Your task to perform on an android device: What is the capital of China? Image 0: 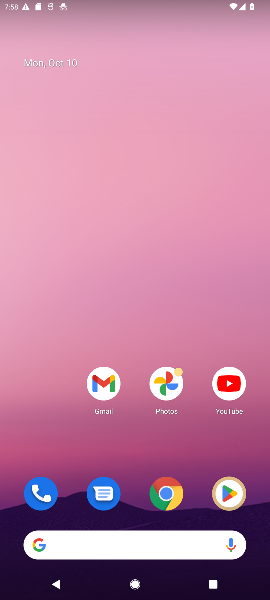
Step 0: click (103, 552)
Your task to perform on an android device: What is the capital of China? Image 1: 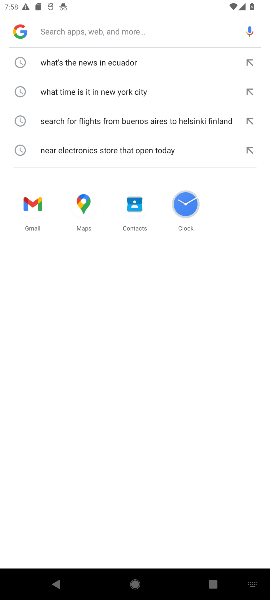
Step 1: type "What is the capital of China?"
Your task to perform on an android device: What is the capital of China? Image 2: 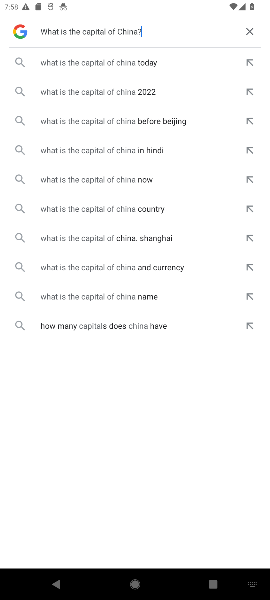
Step 2: click (76, 63)
Your task to perform on an android device: What is the capital of China? Image 3: 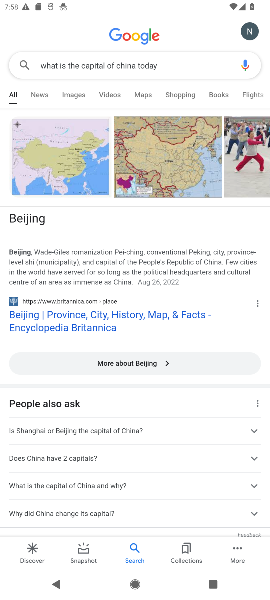
Step 3: task complete